Your task to perform on an android device: Search for sushi restaurants on Maps Image 0: 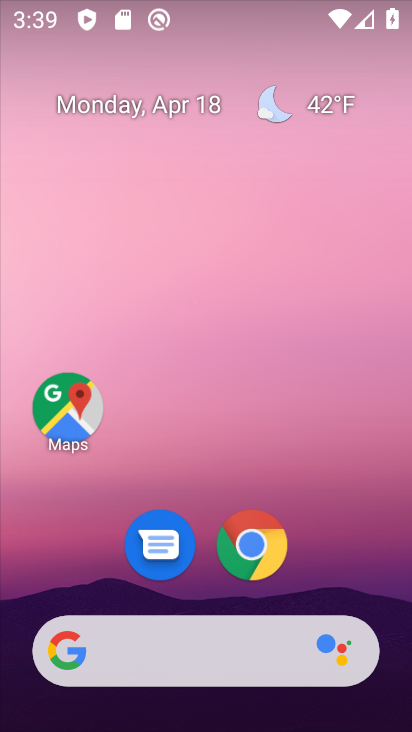
Step 0: drag from (296, 565) to (292, 74)
Your task to perform on an android device: Search for sushi restaurants on Maps Image 1: 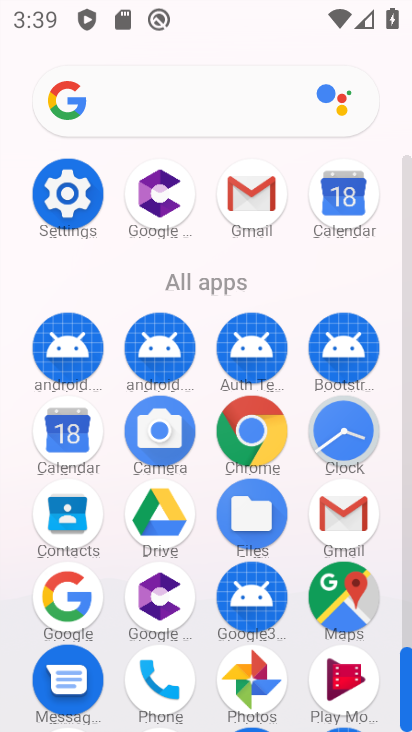
Step 1: drag from (194, 641) to (207, 398)
Your task to perform on an android device: Search for sushi restaurants on Maps Image 2: 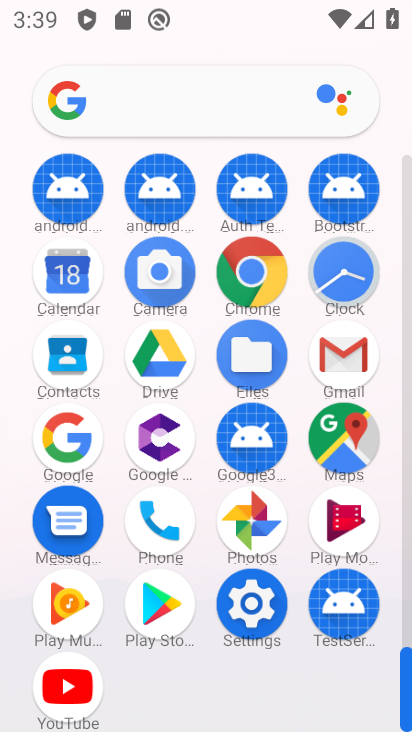
Step 2: click (354, 449)
Your task to perform on an android device: Search for sushi restaurants on Maps Image 3: 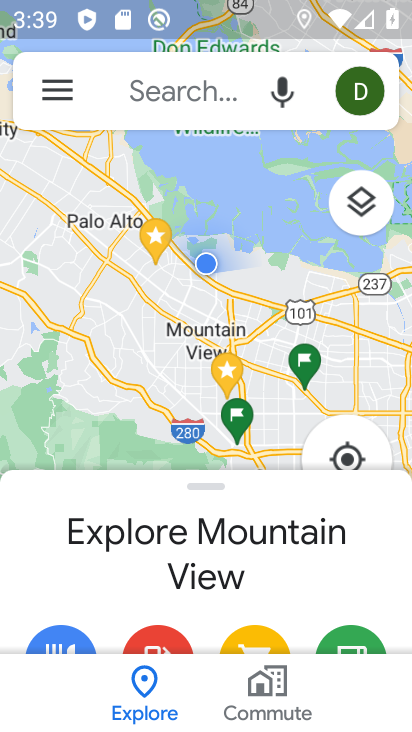
Step 3: click (200, 101)
Your task to perform on an android device: Search for sushi restaurants on Maps Image 4: 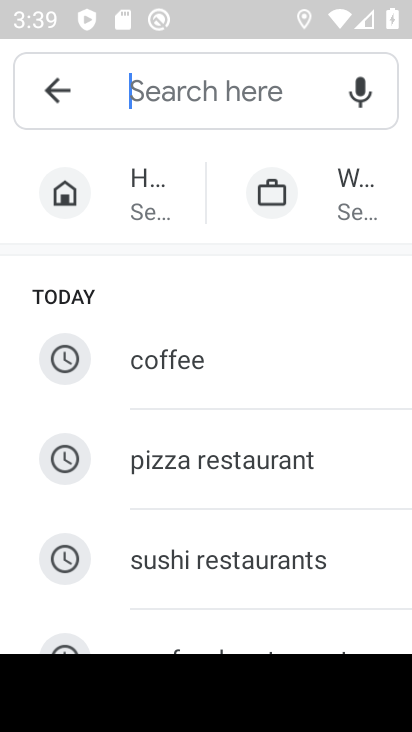
Step 4: type "sushi restautants"
Your task to perform on an android device: Search for sushi restaurants on Maps Image 5: 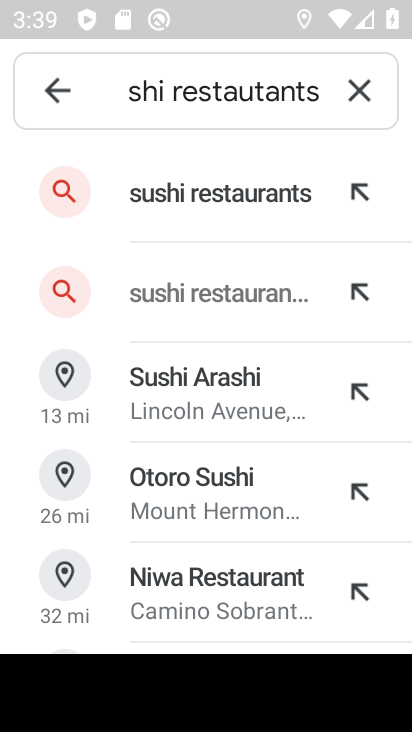
Step 5: click (258, 185)
Your task to perform on an android device: Search for sushi restaurants on Maps Image 6: 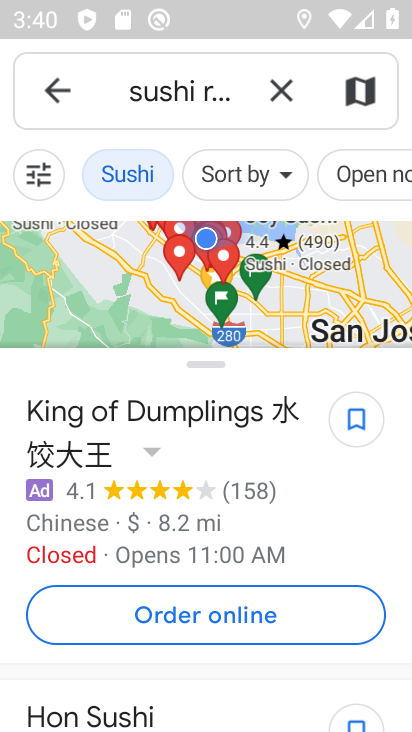
Step 6: task complete